Your task to perform on an android device: uninstall "Google Chat" Image 0: 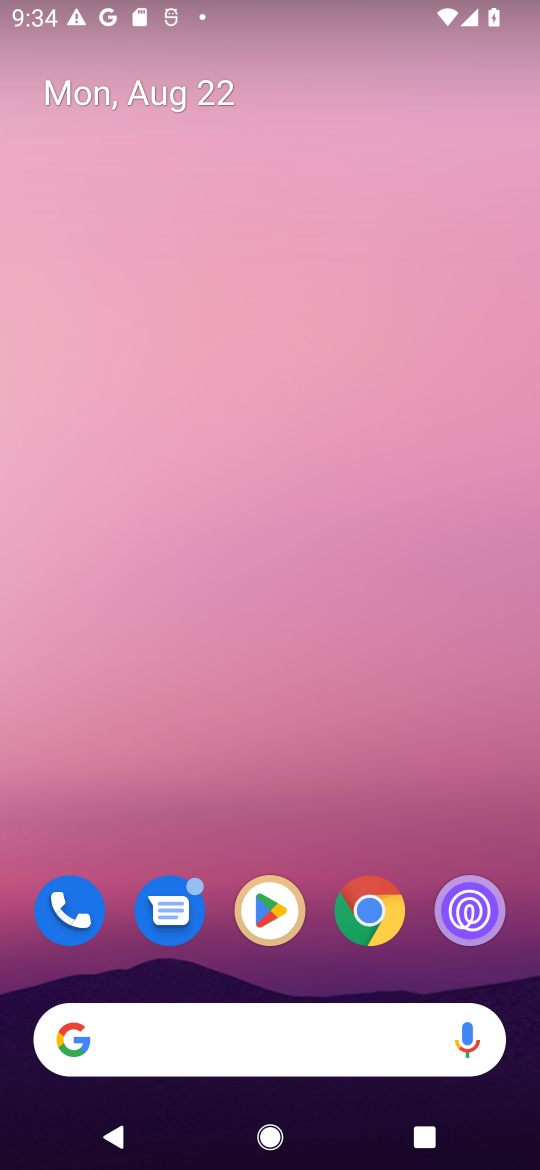
Step 0: click (267, 930)
Your task to perform on an android device: uninstall "Google Chat" Image 1: 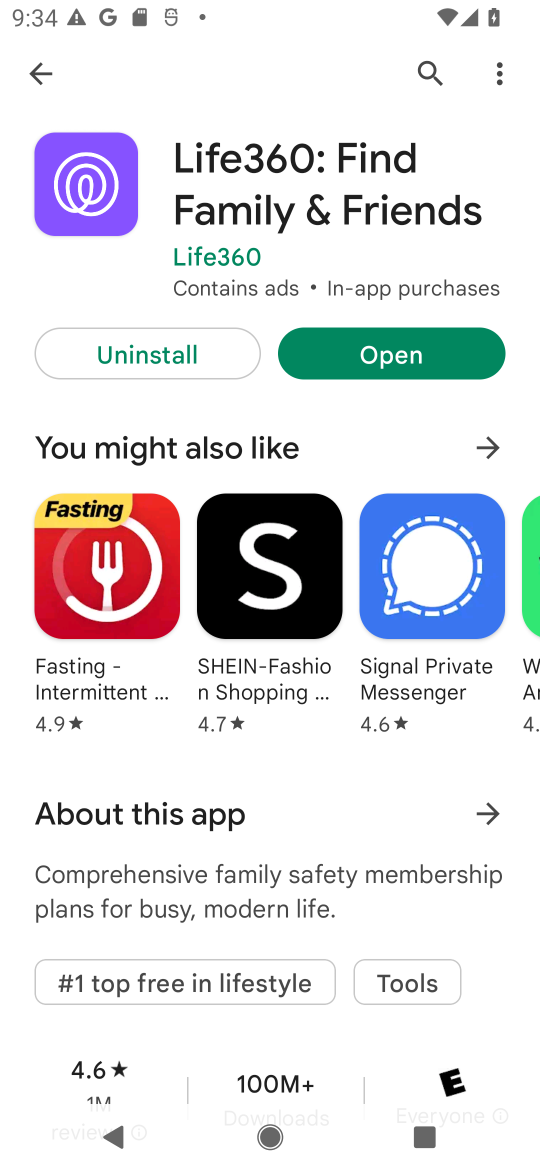
Step 1: click (412, 78)
Your task to perform on an android device: uninstall "Google Chat" Image 2: 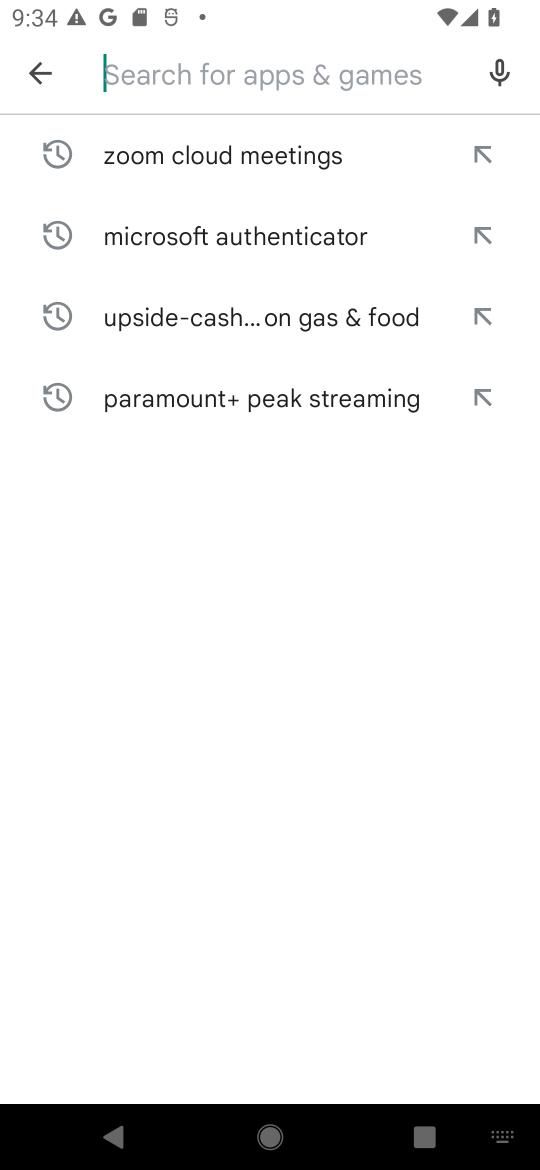
Step 2: type "Google Chat"
Your task to perform on an android device: uninstall "Google Chat" Image 3: 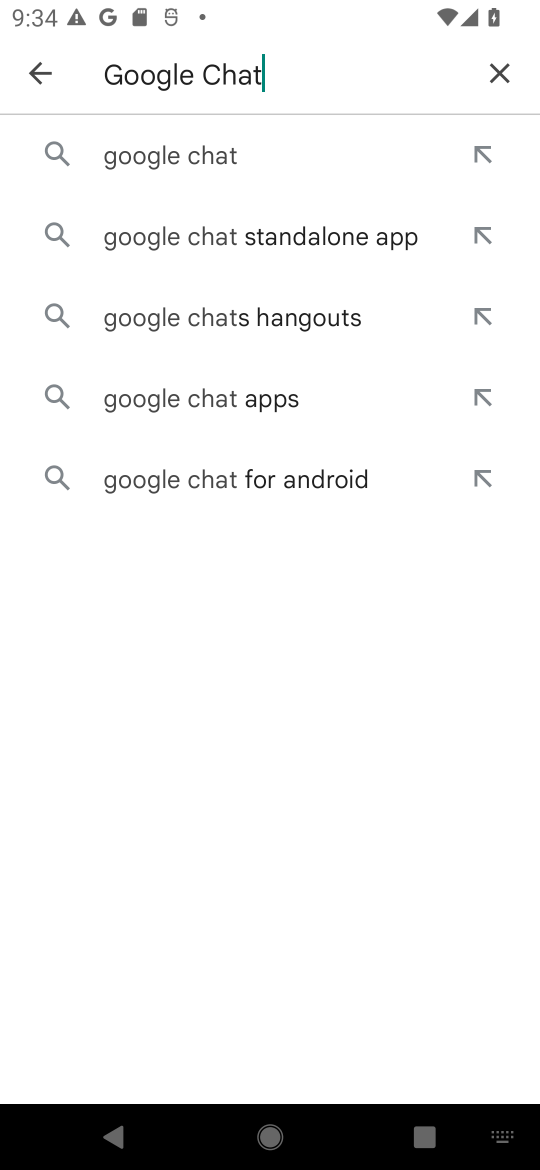
Step 3: click (245, 156)
Your task to perform on an android device: uninstall "Google Chat" Image 4: 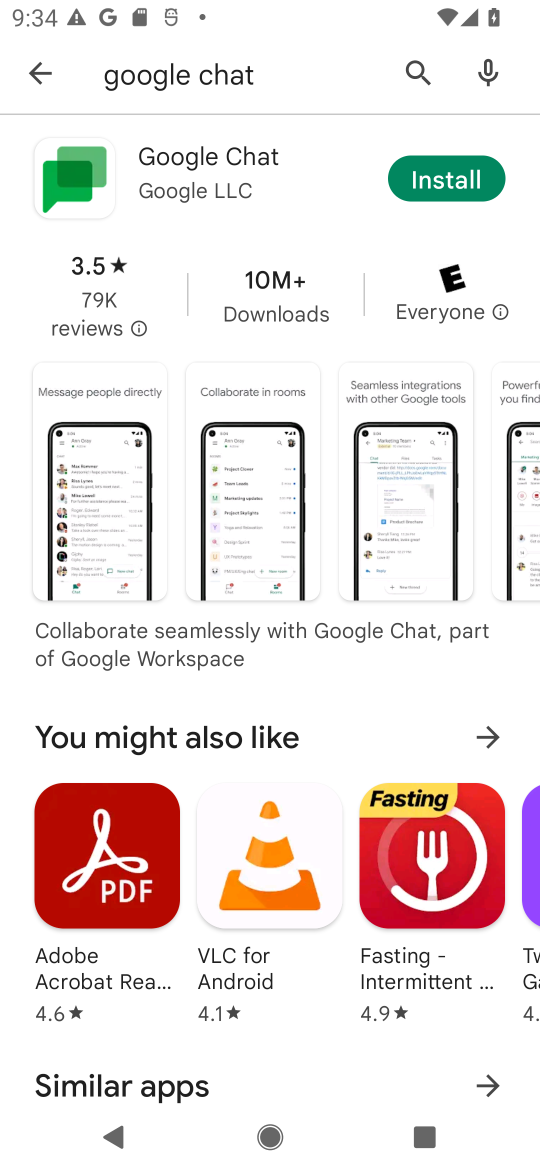
Step 4: task complete